Your task to perform on an android device: add a contact Image 0: 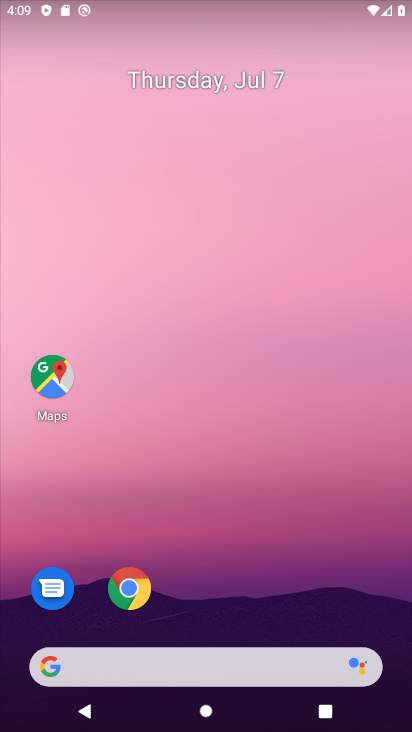
Step 0: drag from (291, 652) to (310, 71)
Your task to perform on an android device: add a contact Image 1: 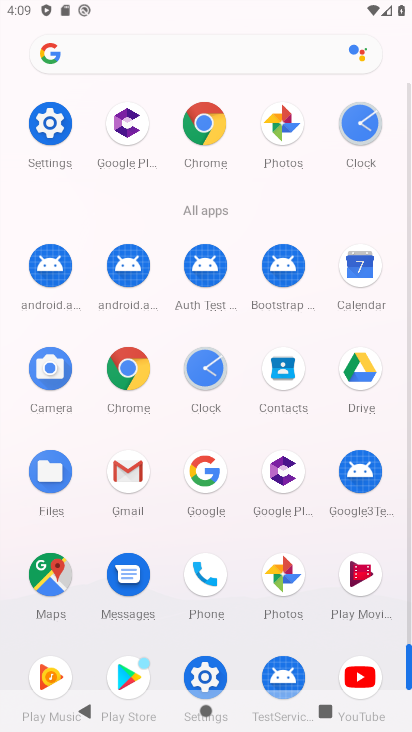
Step 1: click (285, 367)
Your task to perform on an android device: add a contact Image 2: 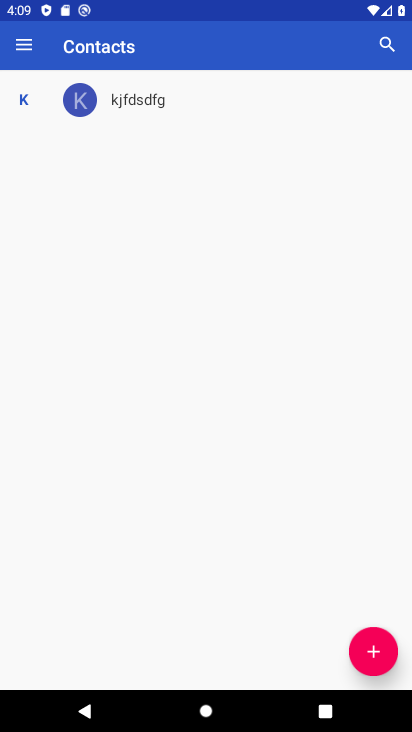
Step 2: click (366, 641)
Your task to perform on an android device: add a contact Image 3: 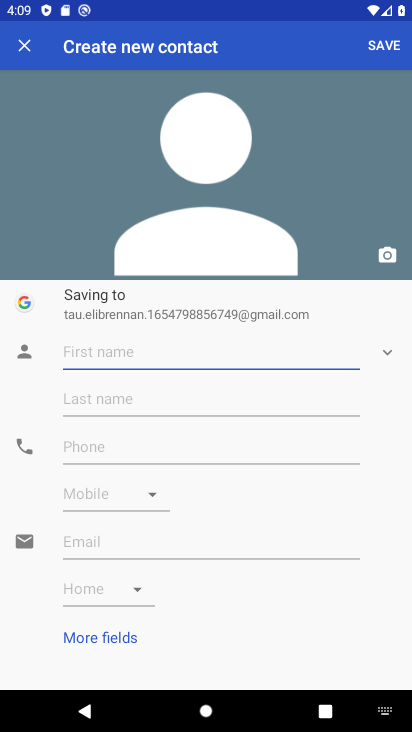
Step 3: click (225, 346)
Your task to perform on an android device: add a contact Image 4: 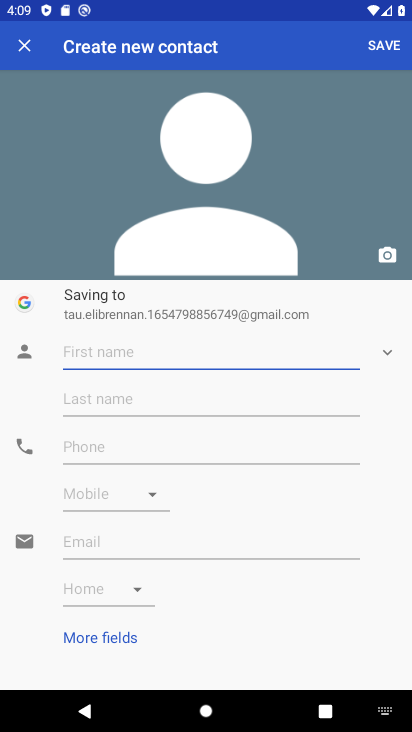
Step 4: type "Rashmi"
Your task to perform on an android device: add a contact Image 5: 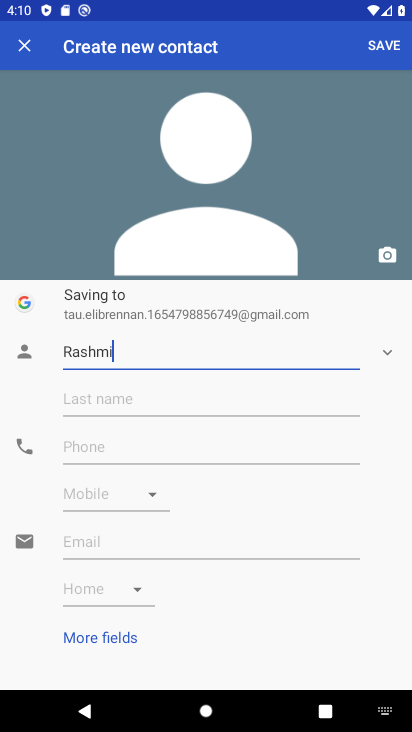
Step 5: click (302, 444)
Your task to perform on an android device: add a contact Image 6: 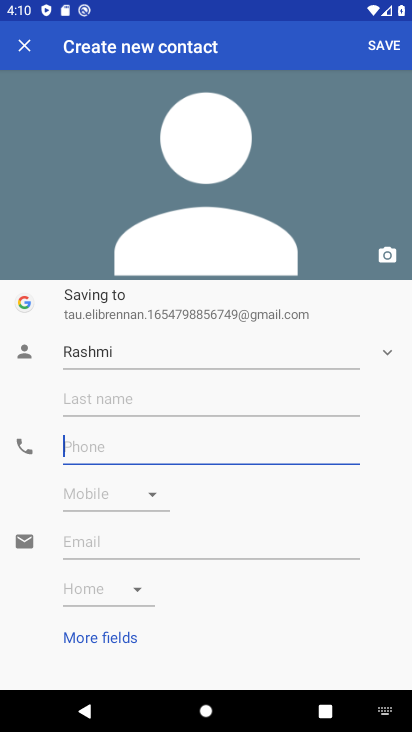
Step 6: type "7867567867"
Your task to perform on an android device: add a contact Image 7: 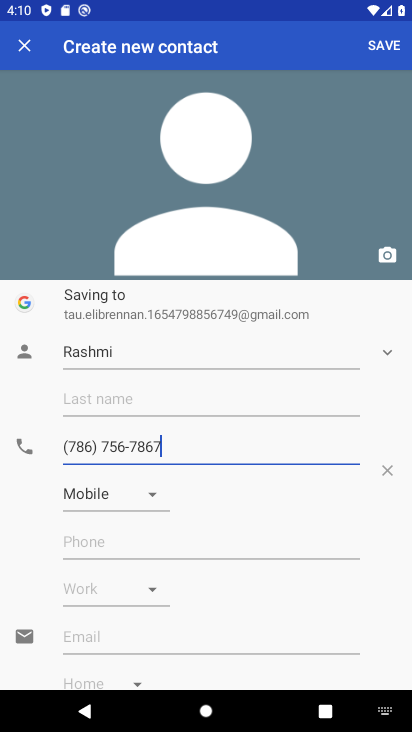
Step 7: click (394, 45)
Your task to perform on an android device: add a contact Image 8: 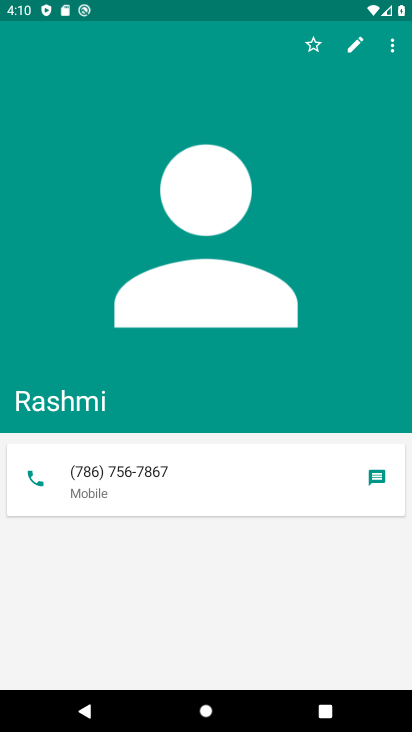
Step 8: task complete